Your task to perform on an android device: Search for vegetarian restaurants on Maps Image 0: 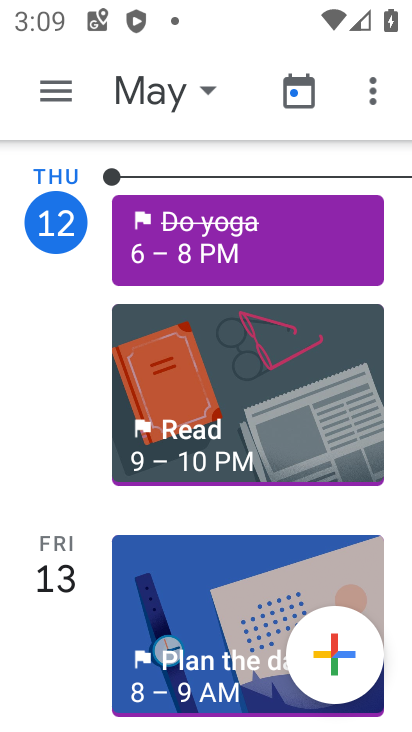
Step 0: press back button
Your task to perform on an android device: Search for vegetarian restaurants on Maps Image 1: 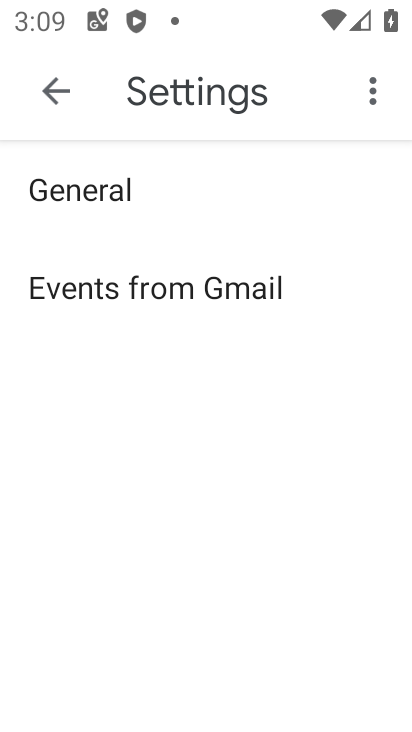
Step 1: press back button
Your task to perform on an android device: Search for vegetarian restaurants on Maps Image 2: 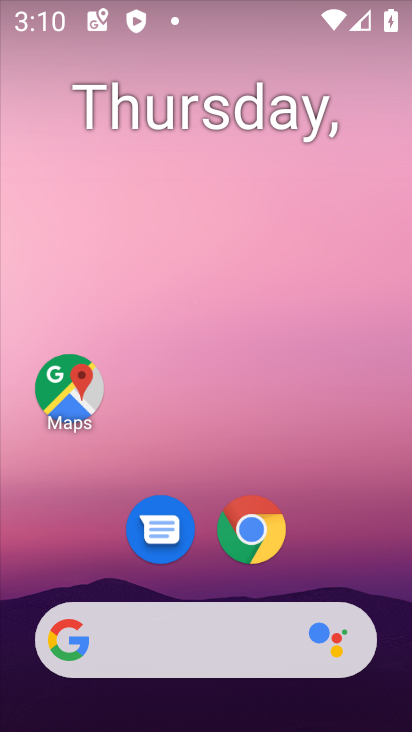
Step 2: click (148, 458)
Your task to perform on an android device: Search for vegetarian restaurants on Maps Image 3: 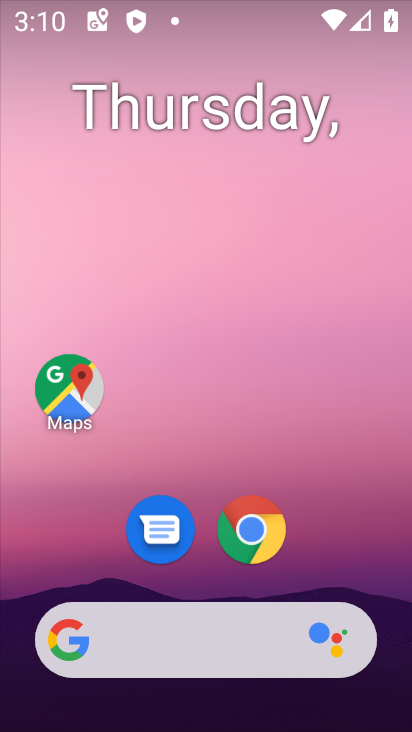
Step 3: click (68, 393)
Your task to perform on an android device: Search for vegetarian restaurants on Maps Image 4: 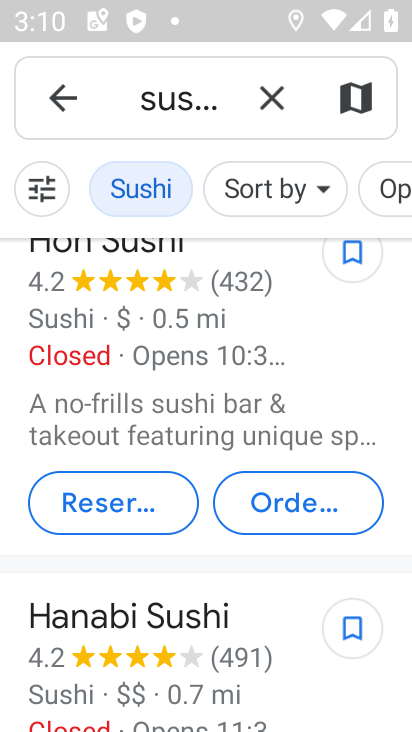
Step 4: click (271, 100)
Your task to perform on an android device: Search for vegetarian restaurants on Maps Image 5: 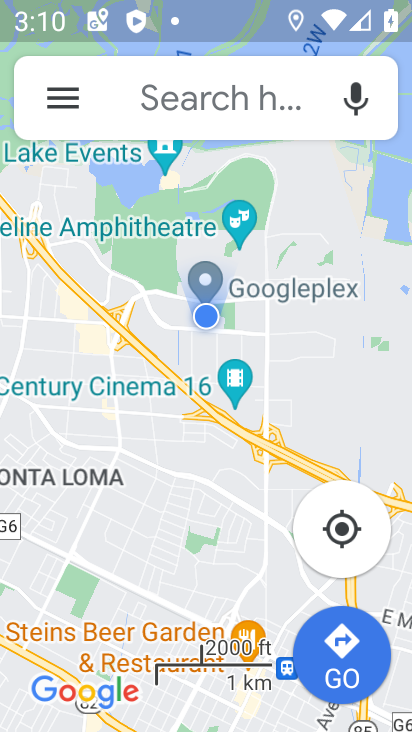
Step 5: click (236, 98)
Your task to perform on an android device: Search for vegetarian restaurants on Maps Image 6: 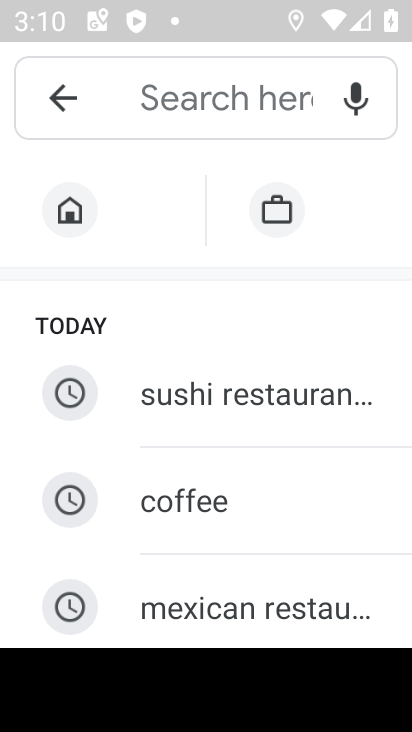
Step 6: type "vegetarian restaurants"
Your task to perform on an android device: Search for vegetarian restaurants on Maps Image 7: 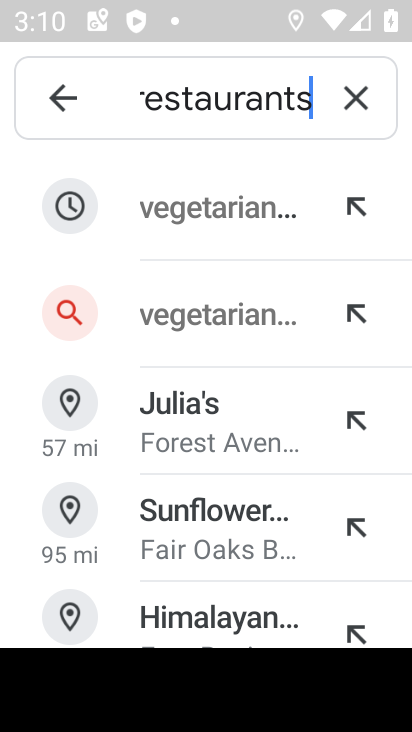
Step 7: click (264, 210)
Your task to perform on an android device: Search for vegetarian restaurants on Maps Image 8: 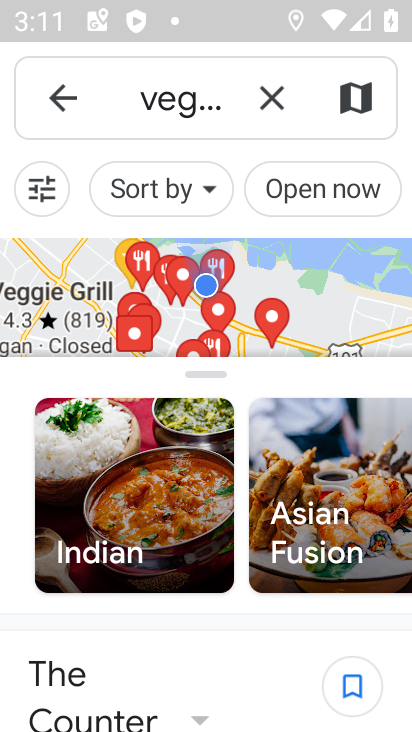
Step 8: task complete